Your task to perform on an android device: open chrome and create a bookmark for the current page Image 0: 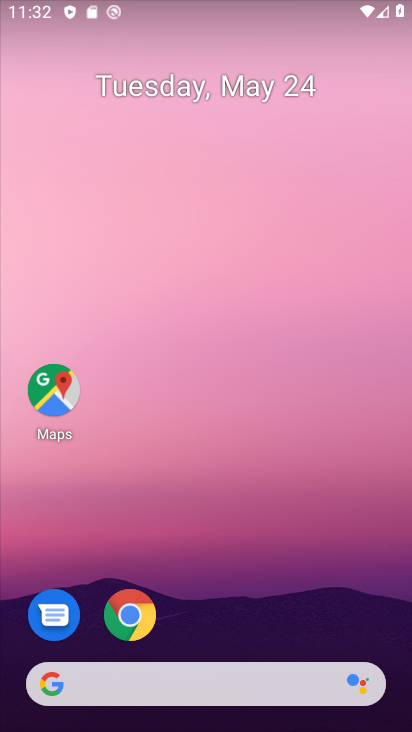
Step 0: click (132, 617)
Your task to perform on an android device: open chrome and create a bookmark for the current page Image 1: 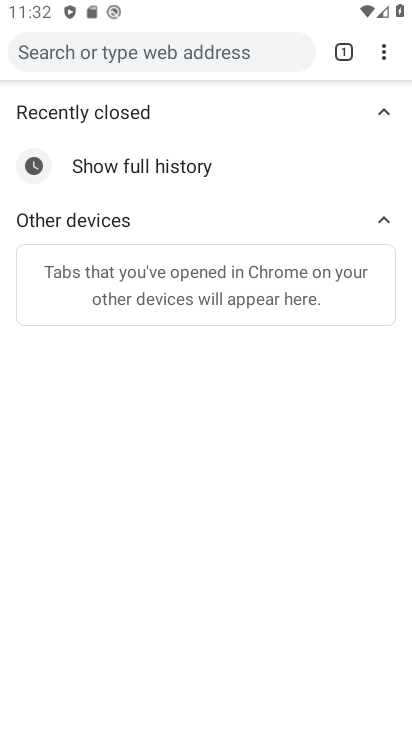
Step 1: click (384, 51)
Your task to perform on an android device: open chrome and create a bookmark for the current page Image 2: 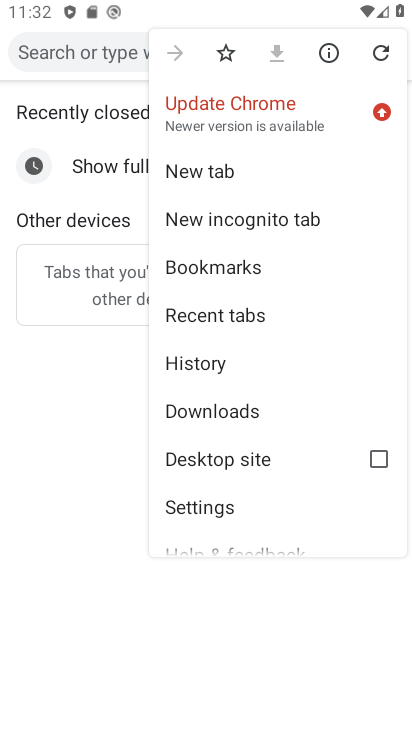
Step 2: click (225, 52)
Your task to perform on an android device: open chrome and create a bookmark for the current page Image 3: 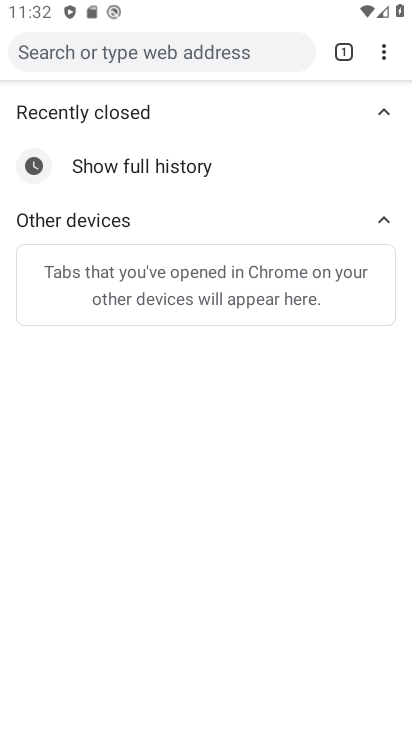
Step 3: task complete